Your task to perform on an android device: install app "Instagram" Image 0: 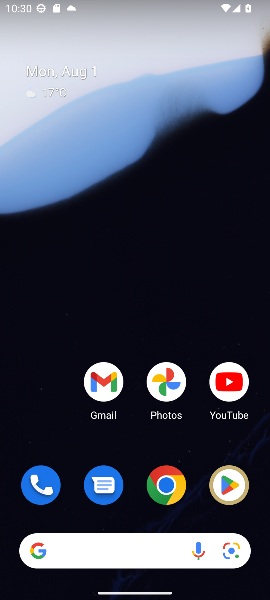
Step 0: drag from (143, 536) to (166, 18)
Your task to perform on an android device: install app "Instagram" Image 1: 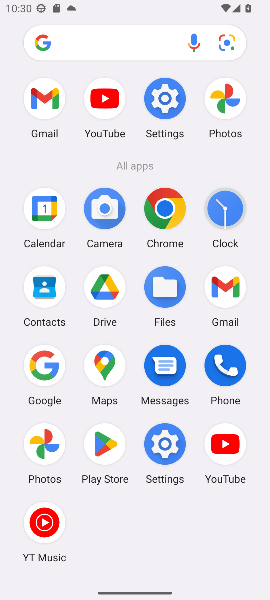
Step 1: click (88, 433)
Your task to perform on an android device: install app "Instagram" Image 2: 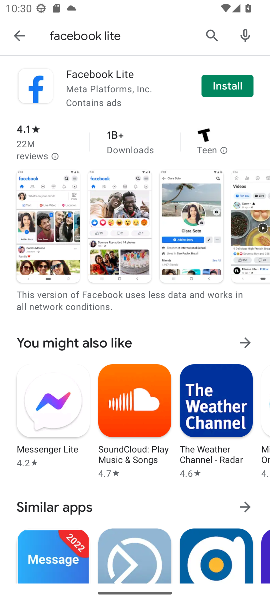
Step 2: click (212, 25)
Your task to perform on an android device: install app "Instagram" Image 3: 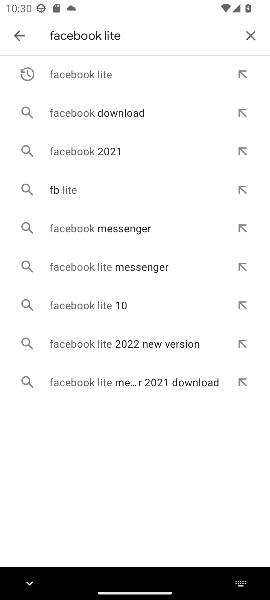
Step 3: click (247, 30)
Your task to perform on an android device: install app "Instagram" Image 4: 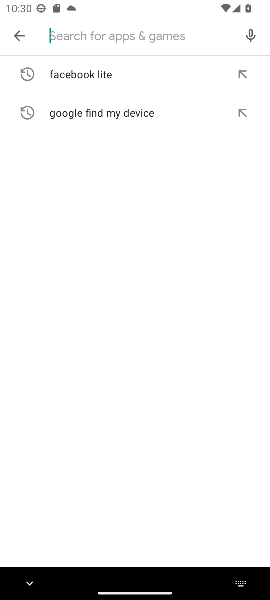
Step 4: type "instagram"
Your task to perform on an android device: install app "Instagram" Image 5: 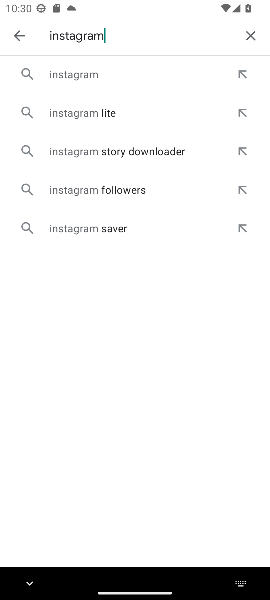
Step 5: click (90, 74)
Your task to perform on an android device: install app "Instagram" Image 6: 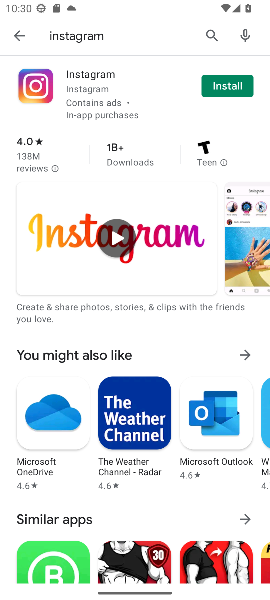
Step 6: click (237, 87)
Your task to perform on an android device: install app "Instagram" Image 7: 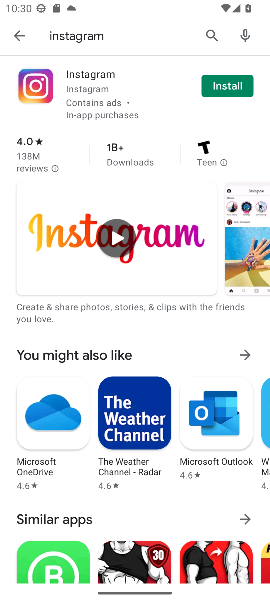
Step 7: click (226, 87)
Your task to perform on an android device: install app "Instagram" Image 8: 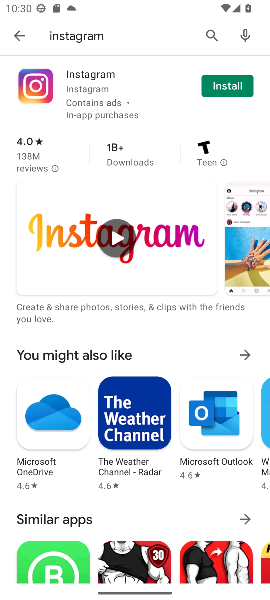
Step 8: click (121, 102)
Your task to perform on an android device: install app "Instagram" Image 9: 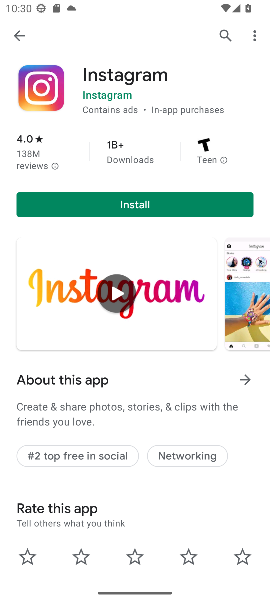
Step 9: click (155, 199)
Your task to perform on an android device: install app "Instagram" Image 10: 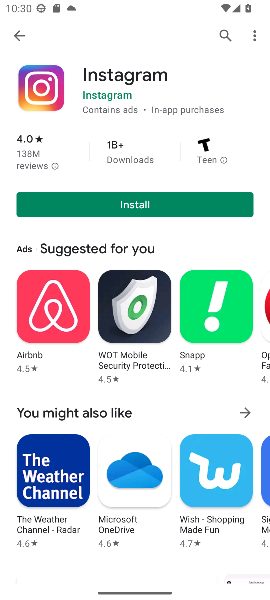
Step 10: click (192, 204)
Your task to perform on an android device: install app "Instagram" Image 11: 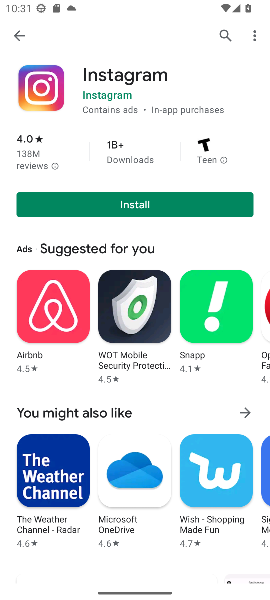
Step 11: click (204, 205)
Your task to perform on an android device: install app "Instagram" Image 12: 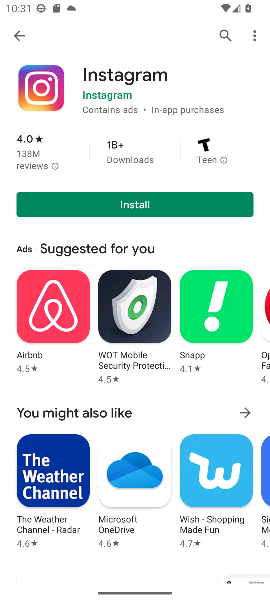
Step 12: click (204, 205)
Your task to perform on an android device: install app "Instagram" Image 13: 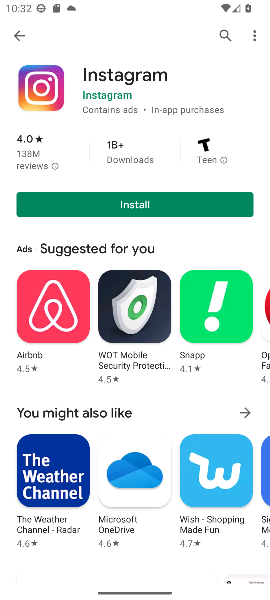
Step 13: click (145, 197)
Your task to perform on an android device: install app "Instagram" Image 14: 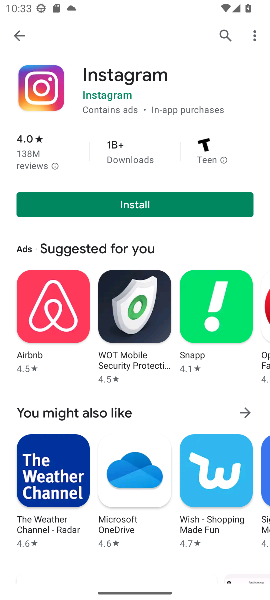
Step 14: click (139, 209)
Your task to perform on an android device: install app "Instagram" Image 15: 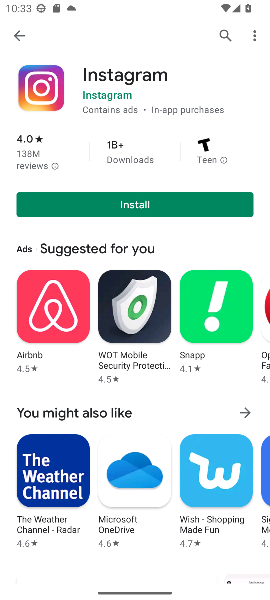
Step 15: click (139, 209)
Your task to perform on an android device: install app "Instagram" Image 16: 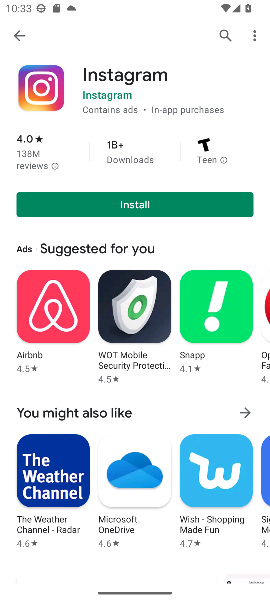
Step 16: click (152, 205)
Your task to perform on an android device: install app "Instagram" Image 17: 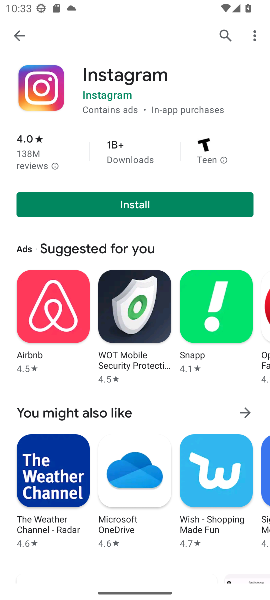
Step 17: click (152, 205)
Your task to perform on an android device: install app "Instagram" Image 18: 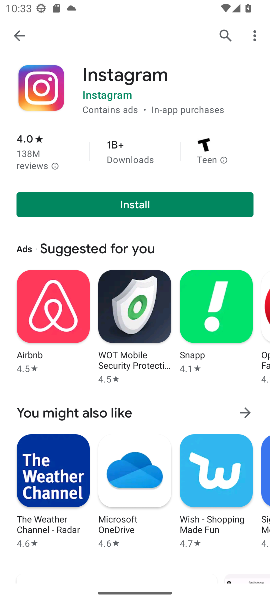
Step 18: click (152, 205)
Your task to perform on an android device: install app "Instagram" Image 19: 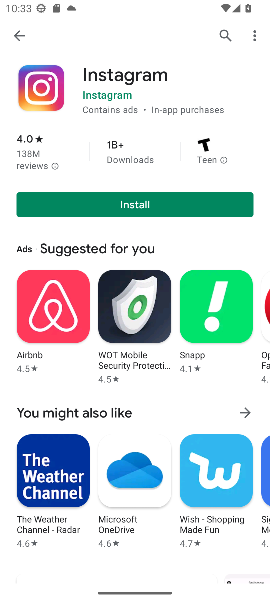
Step 19: click (152, 205)
Your task to perform on an android device: install app "Instagram" Image 20: 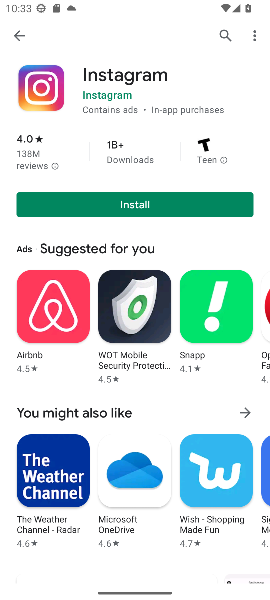
Step 20: click (152, 205)
Your task to perform on an android device: install app "Instagram" Image 21: 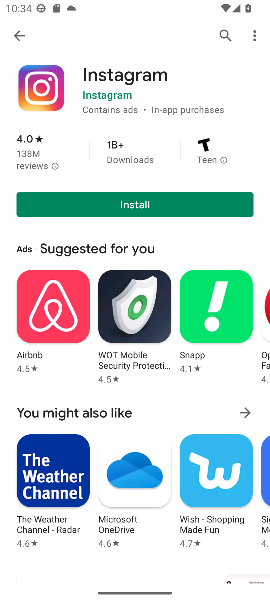
Step 21: click (152, 205)
Your task to perform on an android device: install app "Instagram" Image 22: 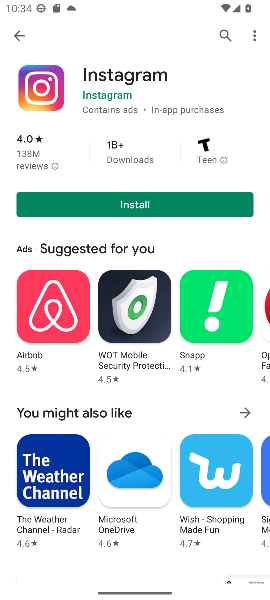
Step 22: click (152, 205)
Your task to perform on an android device: install app "Instagram" Image 23: 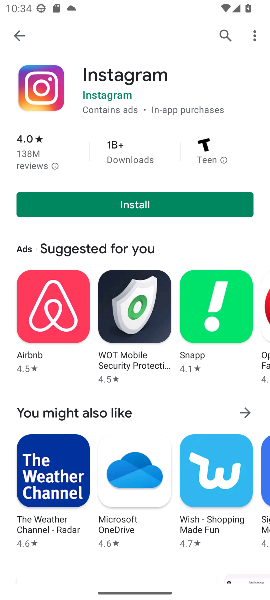
Step 23: click (152, 205)
Your task to perform on an android device: install app "Instagram" Image 24: 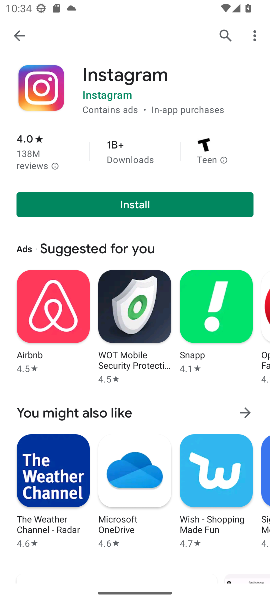
Step 24: task complete